Your task to perform on an android device: turn off translation in the chrome app Image 0: 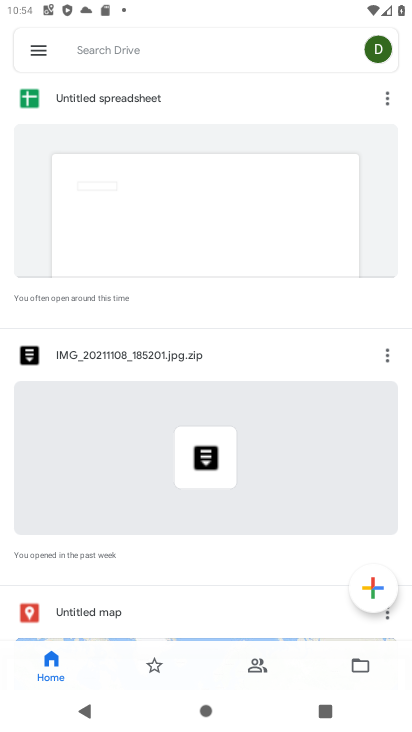
Step 0: press home button
Your task to perform on an android device: turn off translation in the chrome app Image 1: 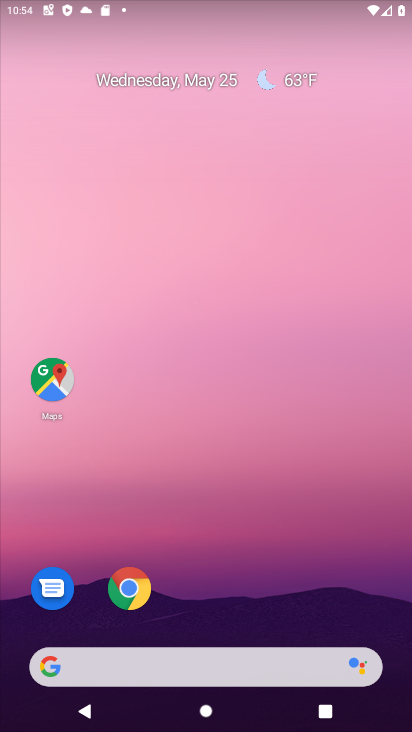
Step 1: click (125, 586)
Your task to perform on an android device: turn off translation in the chrome app Image 2: 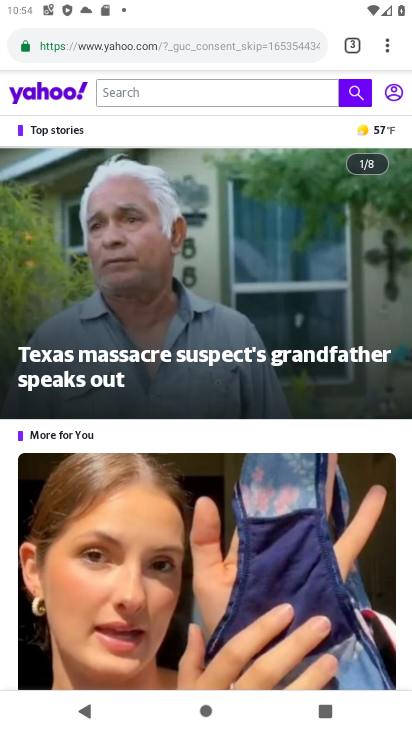
Step 2: click (389, 53)
Your task to perform on an android device: turn off translation in the chrome app Image 3: 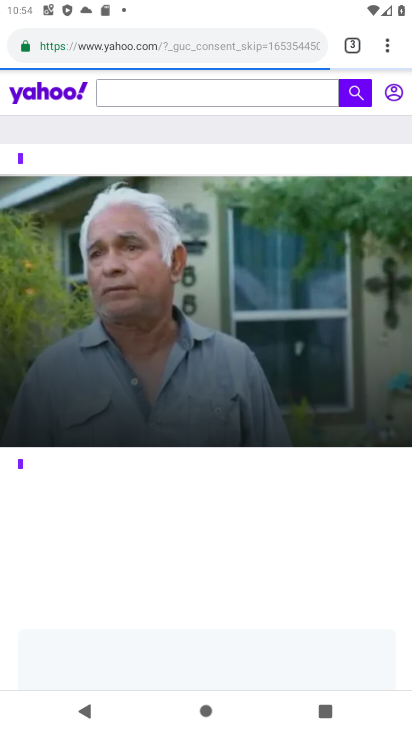
Step 3: click (389, 53)
Your task to perform on an android device: turn off translation in the chrome app Image 4: 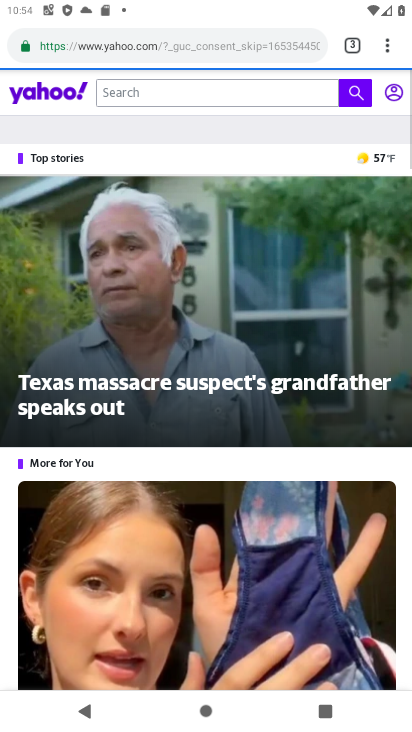
Step 4: click (389, 53)
Your task to perform on an android device: turn off translation in the chrome app Image 5: 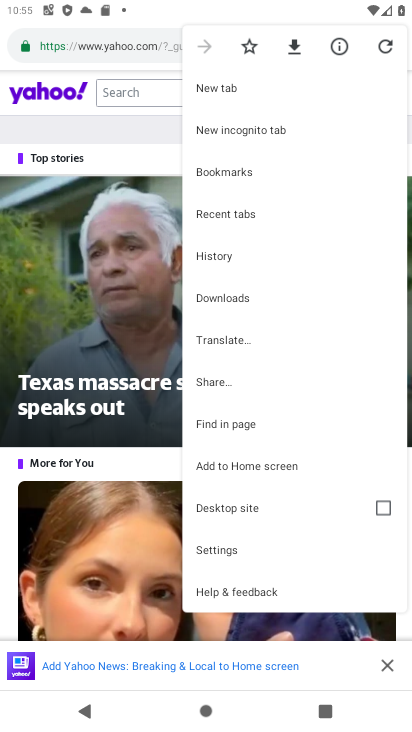
Step 5: click (255, 547)
Your task to perform on an android device: turn off translation in the chrome app Image 6: 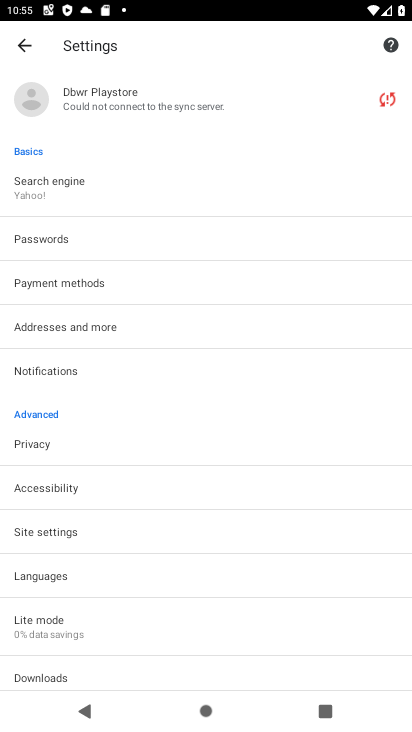
Step 6: click (230, 570)
Your task to perform on an android device: turn off translation in the chrome app Image 7: 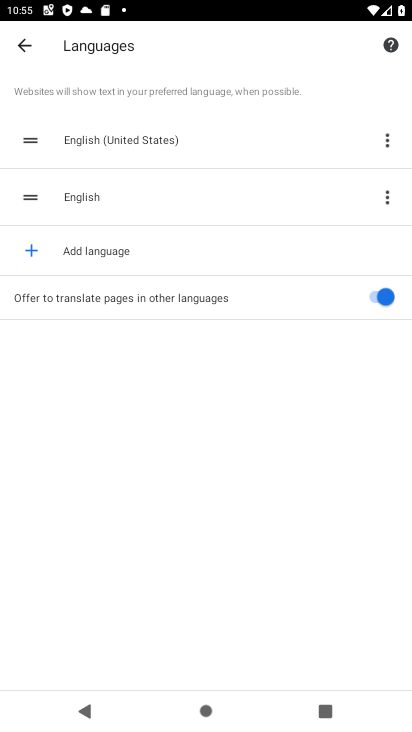
Step 7: click (375, 306)
Your task to perform on an android device: turn off translation in the chrome app Image 8: 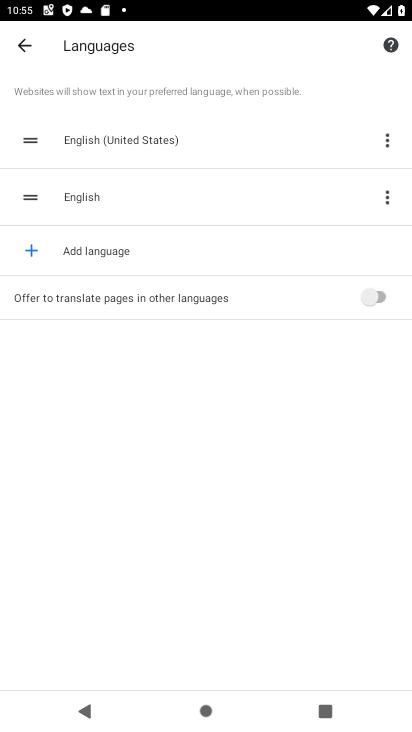
Step 8: task complete